Your task to perform on an android device: uninstall "Calculator" Image 0: 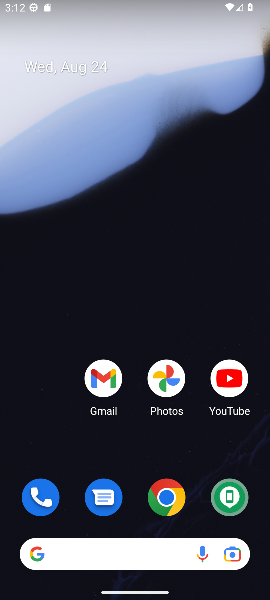
Step 0: drag from (120, 554) to (147, 158)
Your task to perform on an android device: uninstall "Calculator" Image 1: 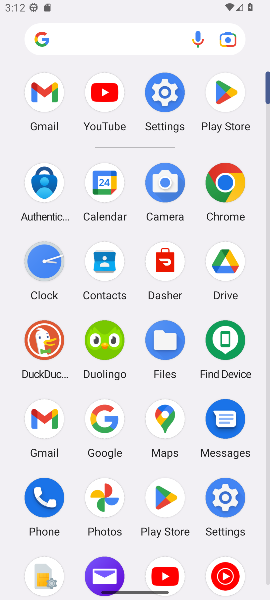
Step 1: click (228, 96)
Your task to perform on an android device: uninstall "Calculator" Image 2: 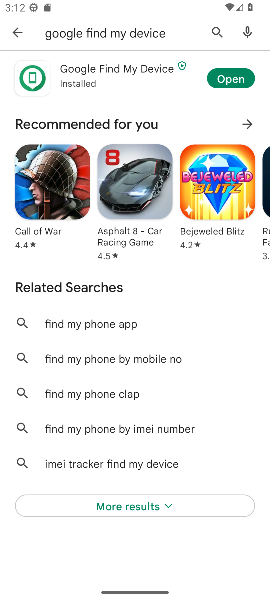
Step 2: press back button
Your task to perform on an android device: uninstall "Calculator" Image 3: 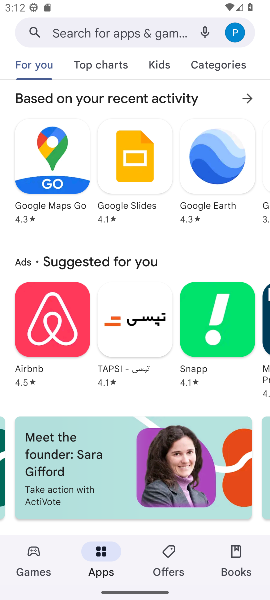
Step 3: click (149, 34)
Your task to perform on an android device: uninstall "Calculator" Image 4: 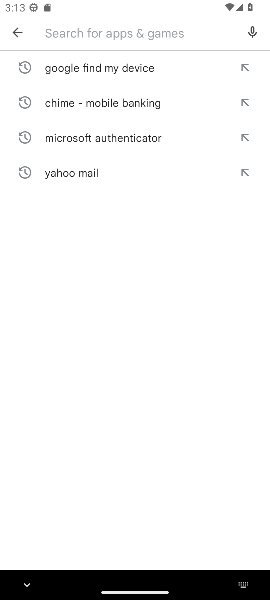
Step 4: type "Calculator"
Your task to perform on an android device: uninstall "Calculator" Image 5: 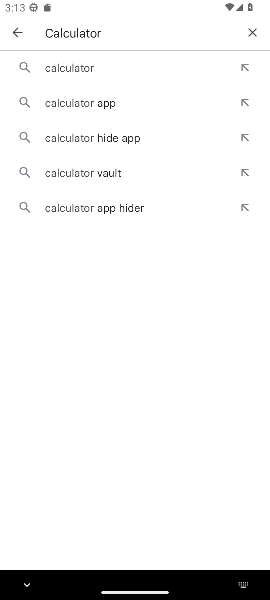
Step 5: click (84, 71)
Your task to perform on an android device: uninstall "Calculator" Image 6: 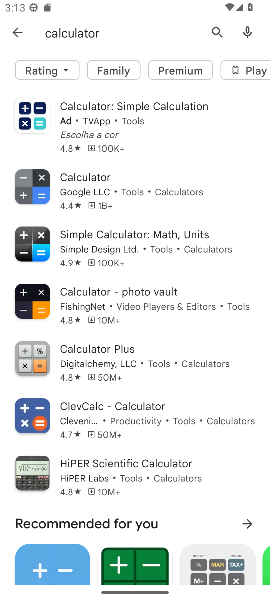
Step 6: task complete